Your task to perform on an android device: set the stopwatch Image 0: 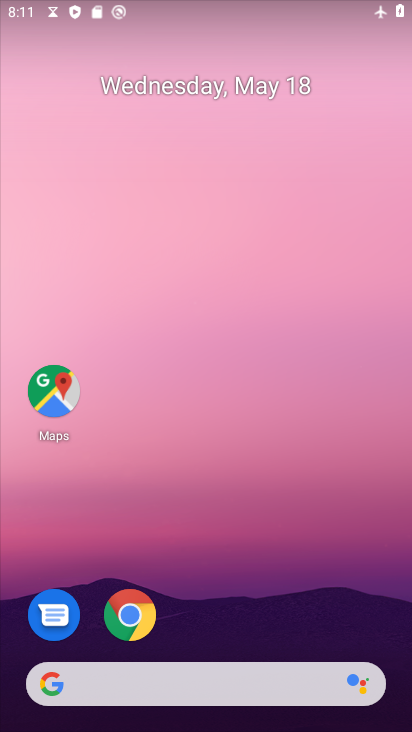
Step 0: drag from (266, 502) to (307, 84)
Your task to perform on an android device: set the stopwatch Image 1: 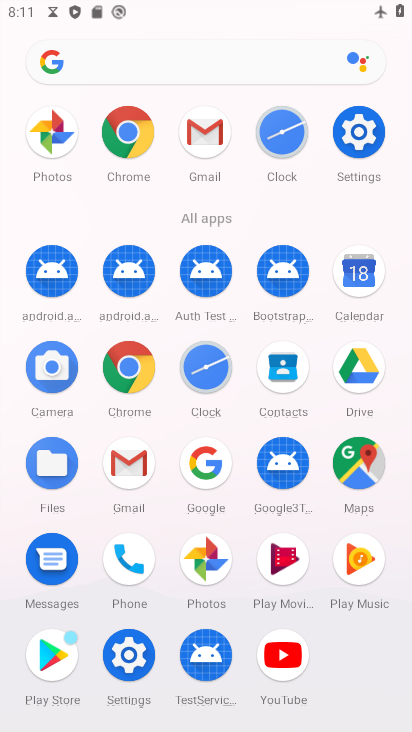
Step 1: click (273, 143)
Your task to perform on an android device: set the stopwatch Image 2: 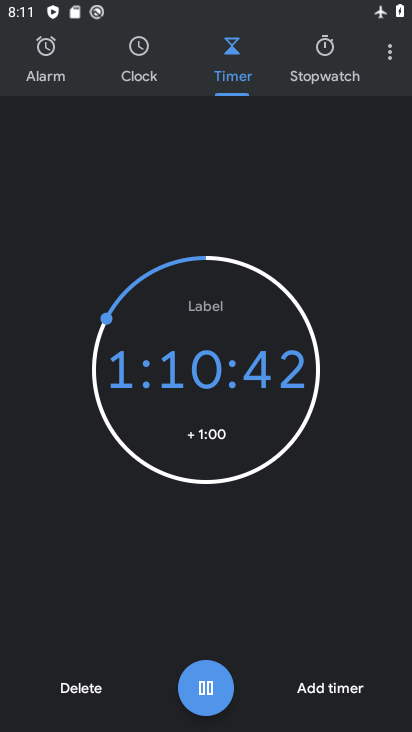
Step 2: click (318, 69)
Your task to perform on an android device: set the stopwatch Image 3: 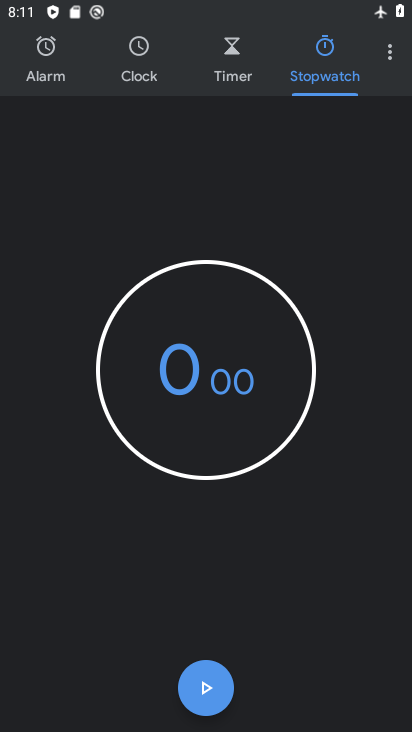
Step 3: click (202, 699)
Your task to perform on an android device: set the stopwatch Image 4: 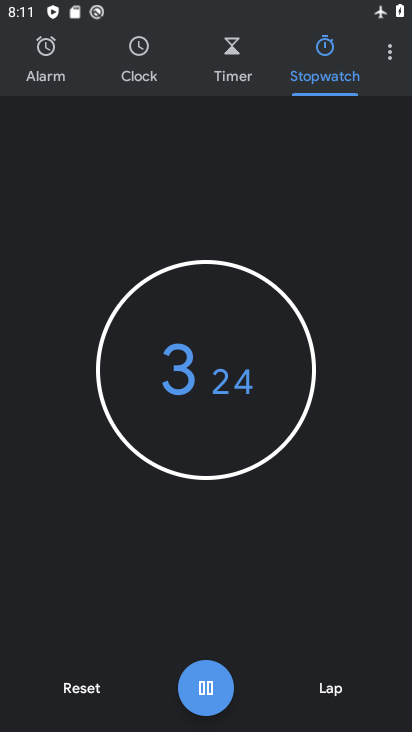
Step 4: task complete